Your task to perform on an android device: Search for the best 100% cotton t-shirts Image 0: 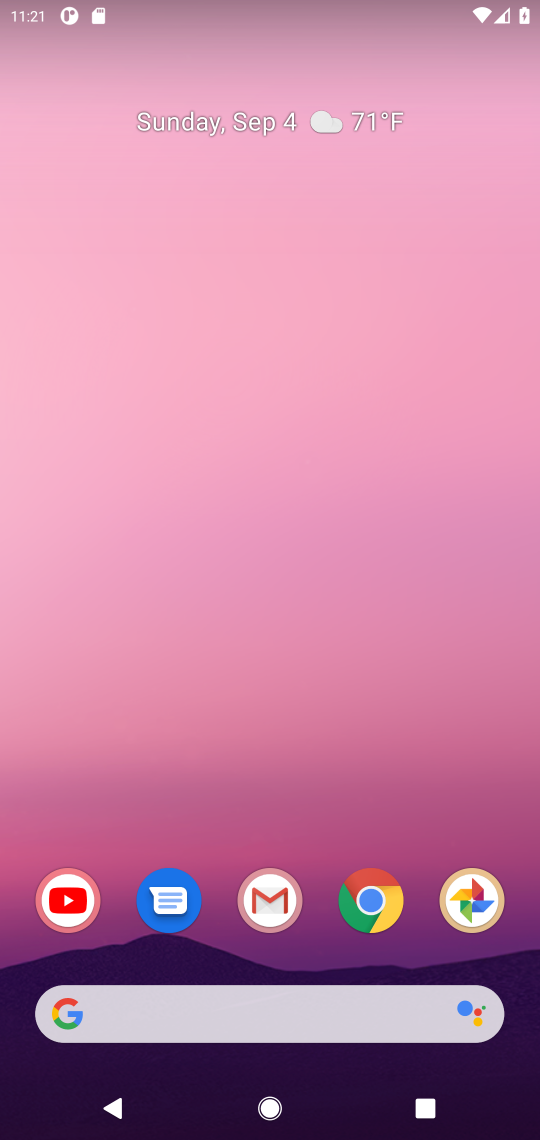
Step 0: press home button
Your task to perform on an android device: Search for the best 100% cotton t-shirts Image 1: 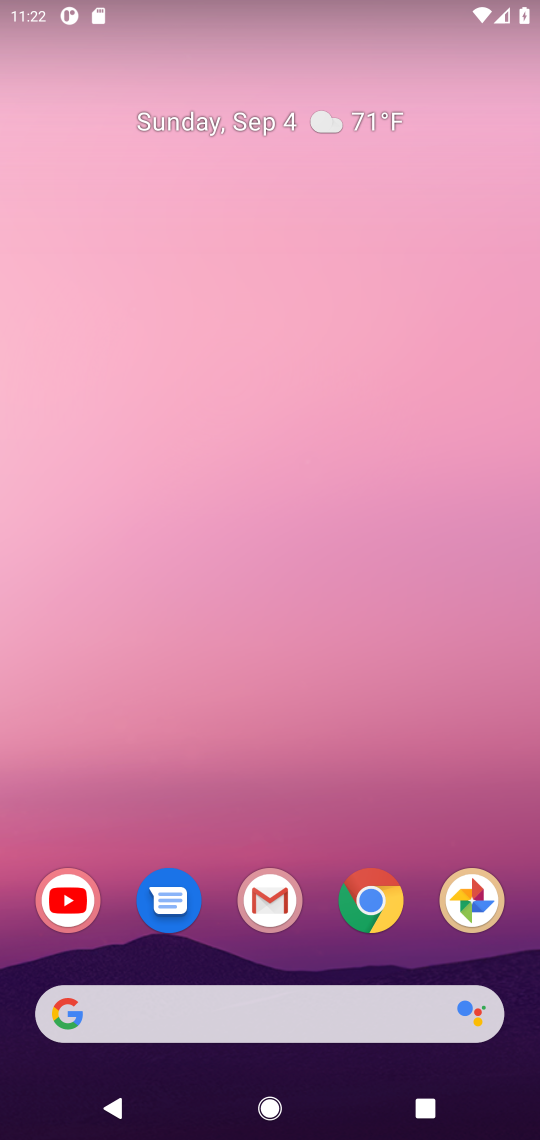
Step 1: click (372, 907)
Your task to perform on an android device: Search for the best 100% cotton t-shirts Image 2: 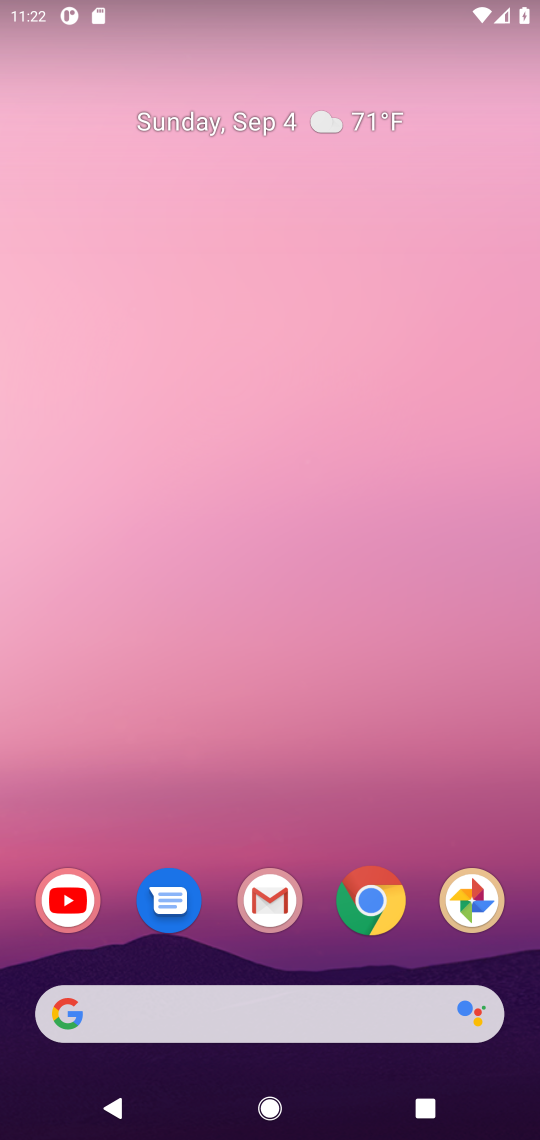
Step 2: click (372, 907)
Your task to perform on an android device: Search for the best 100% cotton t-shirts Image 3: 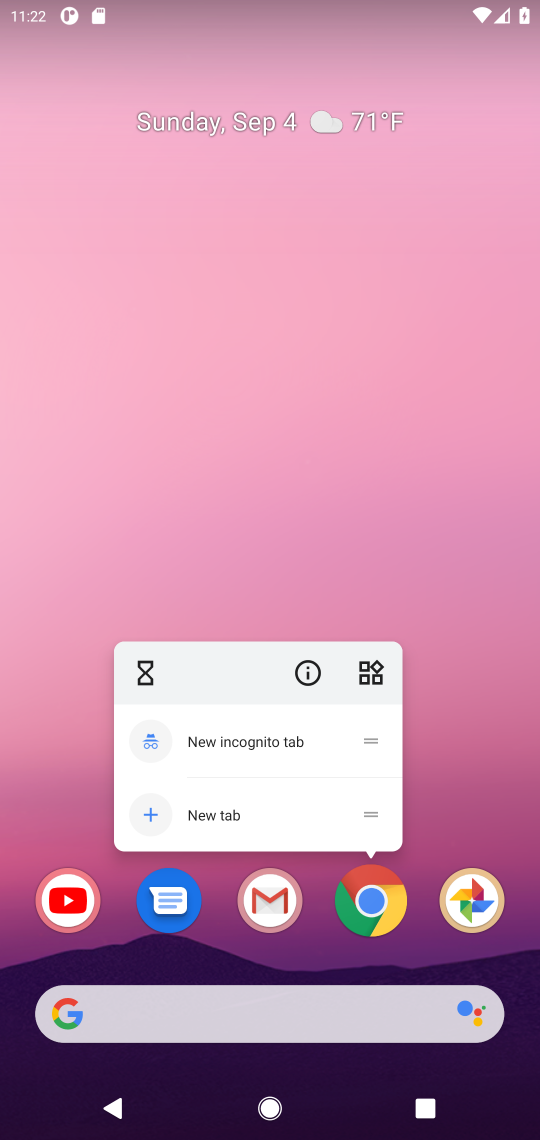
Step 3: click (372, 907)
Your task to perform on an android device: Search for the best 100% cotton t-shirts Image 4: 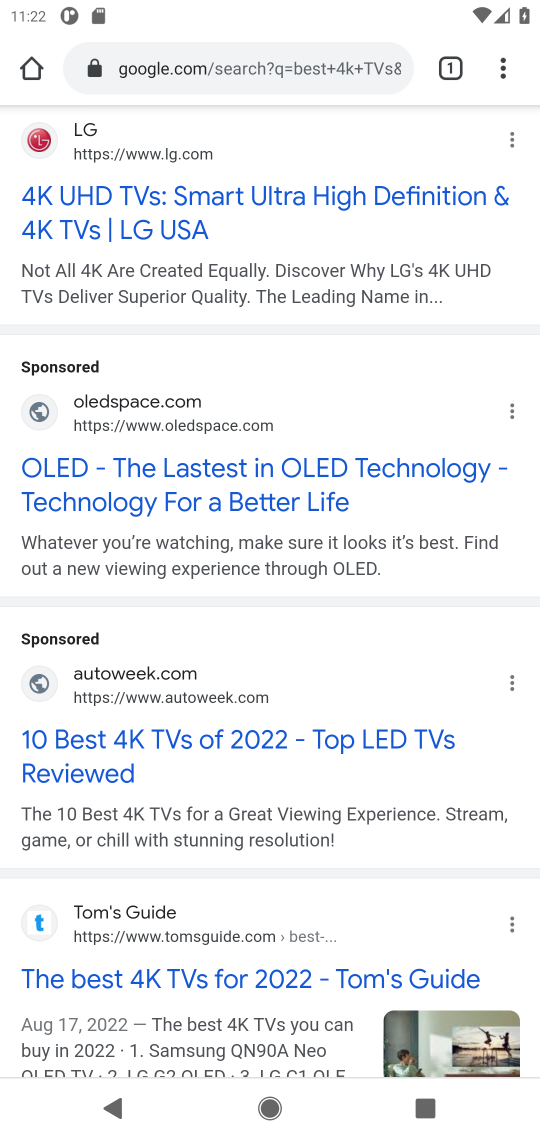
Step 4: click (241, 66)
Your task to perform on an android device: Search for the best 100% cotton t-shirts Image 5: 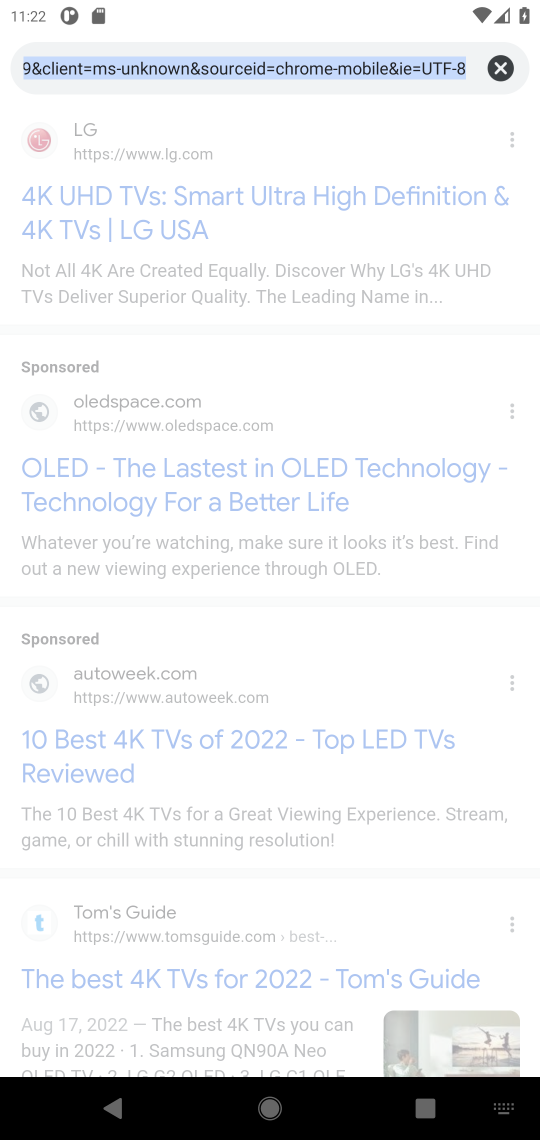
Step 5: click (496, 61)
Your task to perform on an android device: Search for the best 100% cotton t-shirts Image 6: 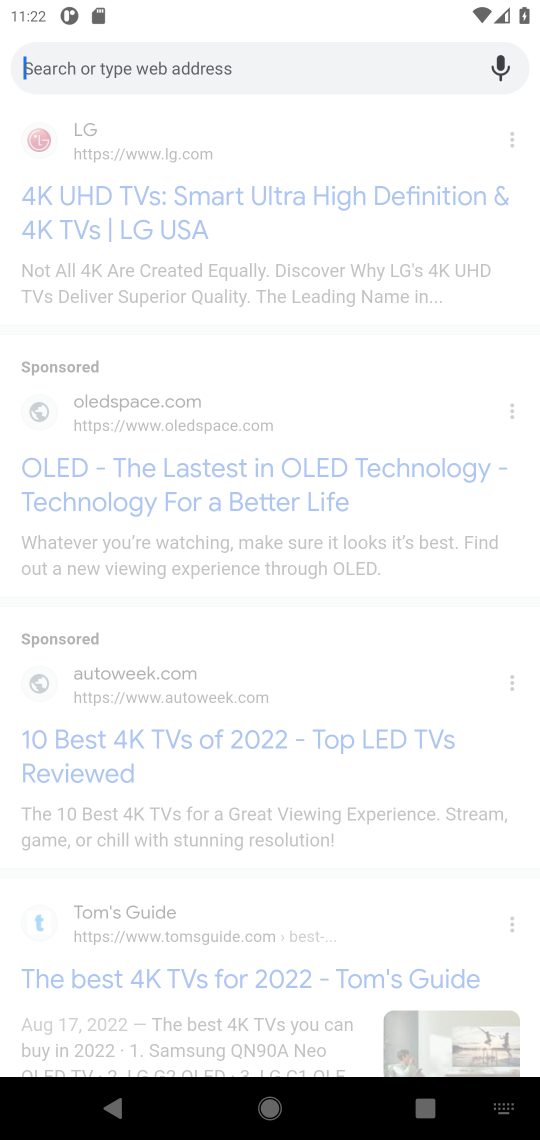
Step 6: click (254, 67)
Your task to perform on an android device: Search for the best 100% cotton t-shirts Image 7: 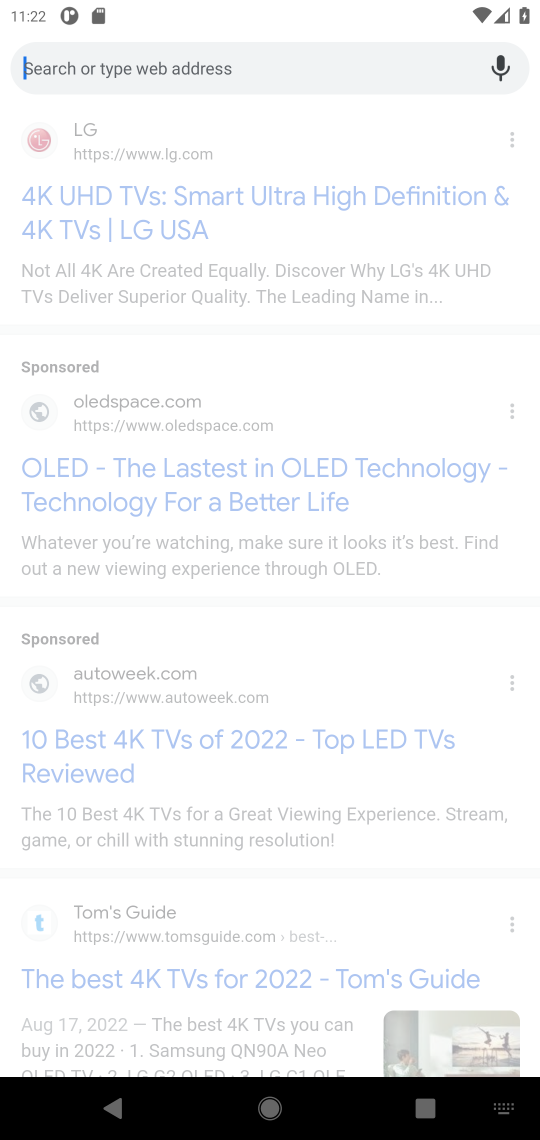
Step 7: press enter
Your task to perform on an android device: Search for the best 100% cotton t-shirts Image 8: 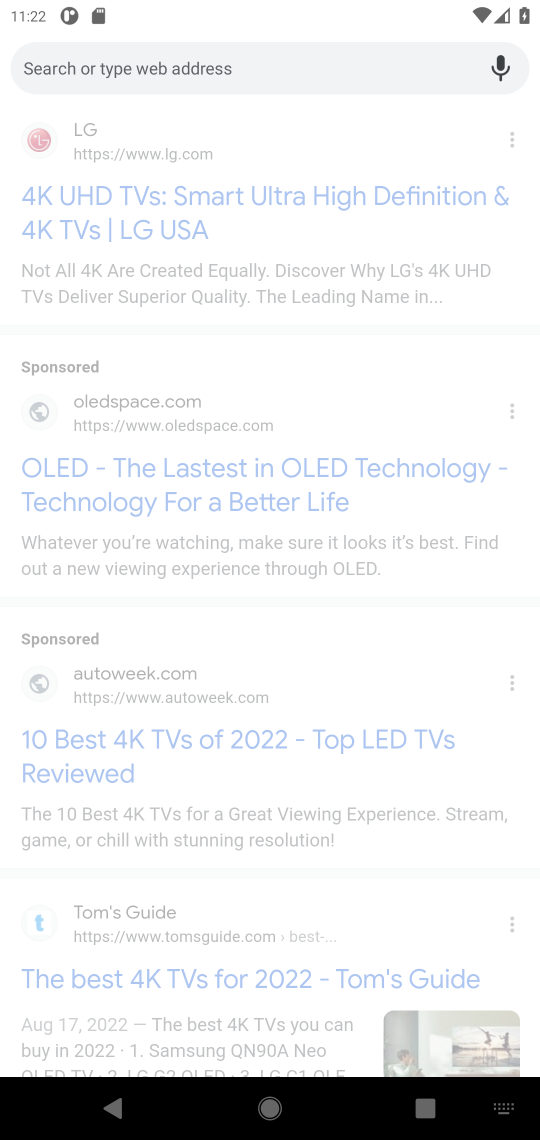
Step 8: type "best 100% cotton t-shirts"
Your task to perform on an android device: Search for the best 100% cotton t-shirts Image 9: 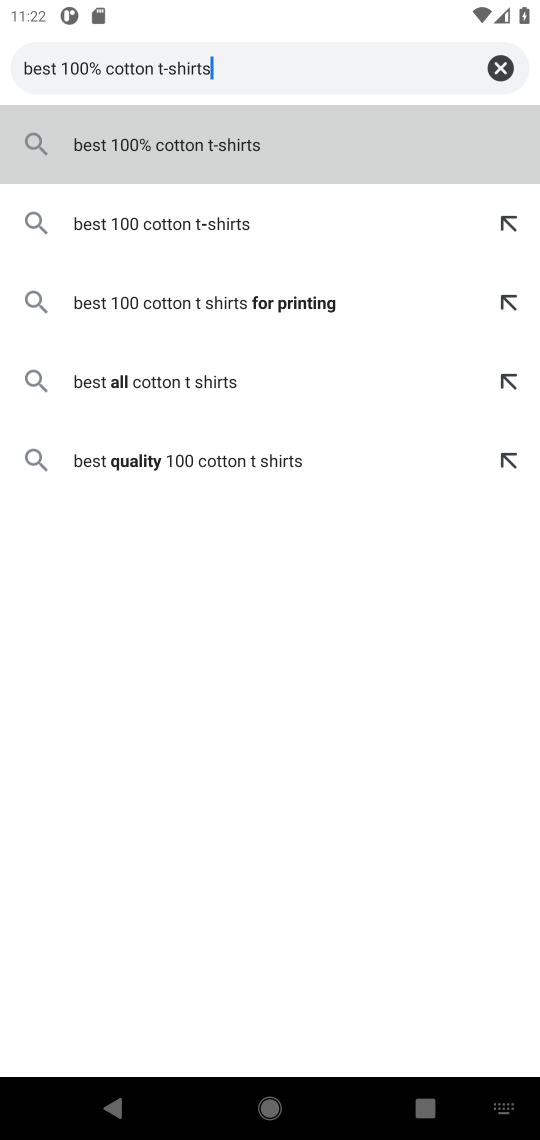
Step 9: click (182, 147)
Your task to perform on an android device: Search for the best 100% cotton t-shirts Image 10: 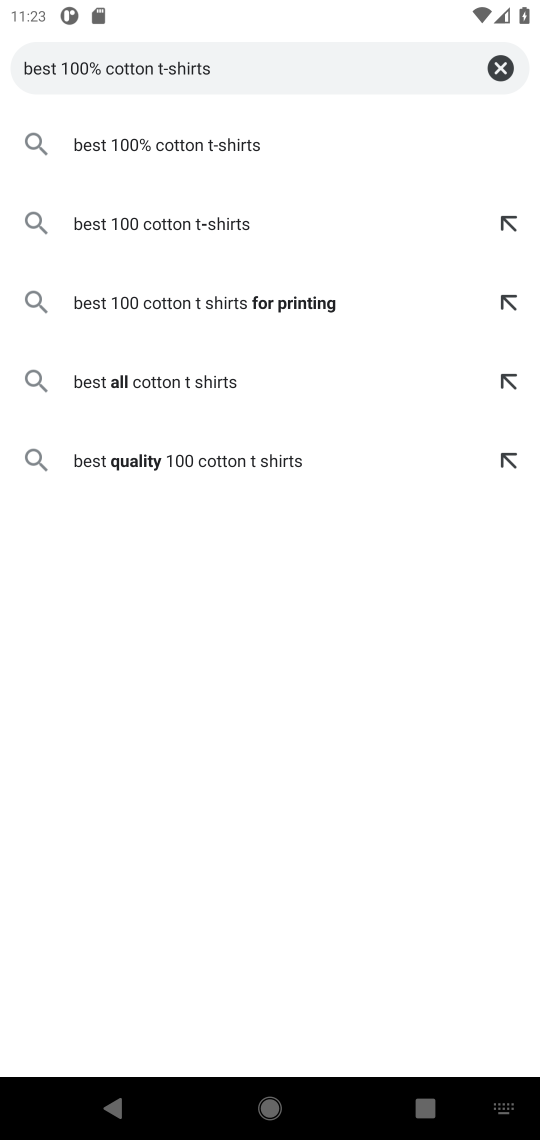
Step 10: click (38, 136)
Your task to perform on an android device: Search for the best 100% cotton t-shirts Image 11: 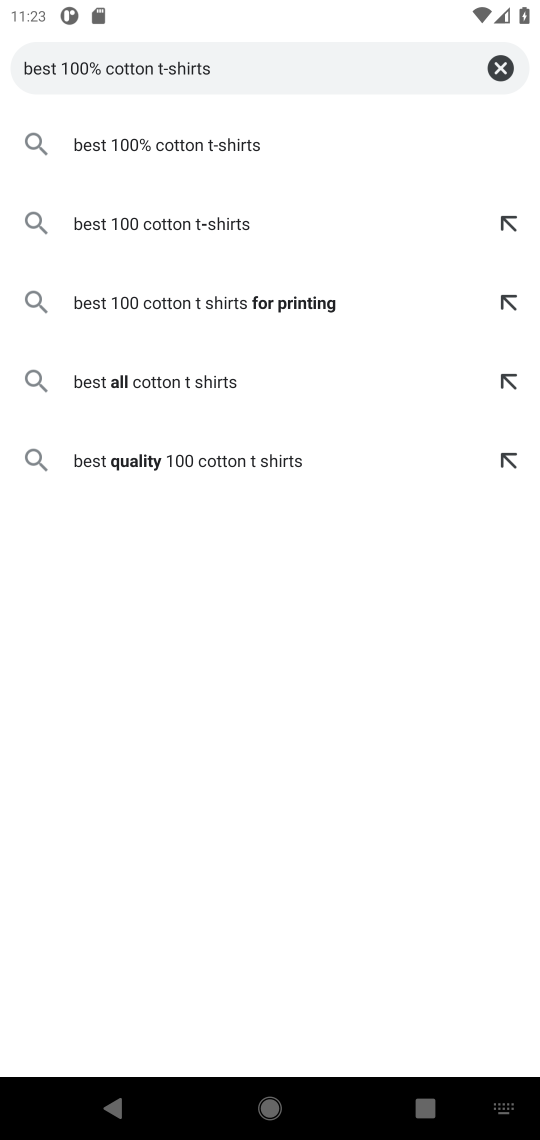
Step 11: click (166, 135)
Your task to perform on an android device: Search for the best 100% cotton t-shirts Image 12: 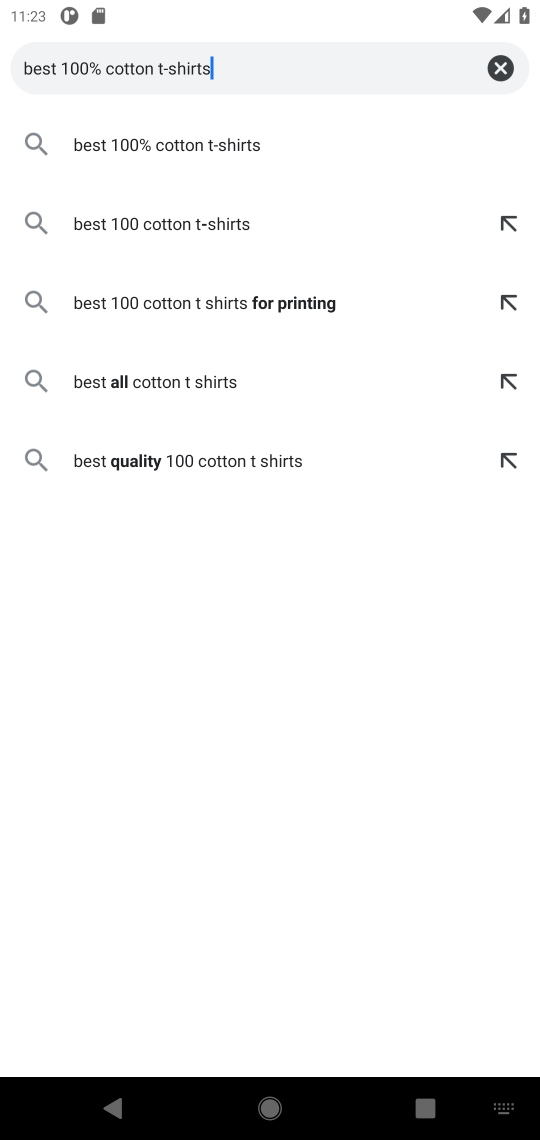
Step 12: click (175, 145)
Your task to perform on an android device: Search for the best 100% cotton t-shirts Image 13: 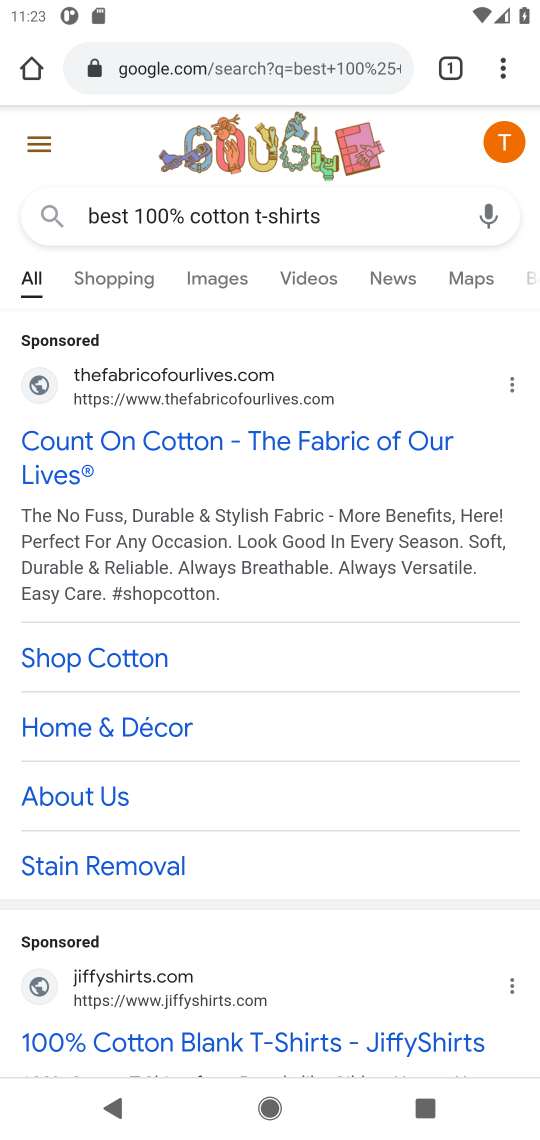
Step 13: task complete